Your task to perform on an android device: Find coffee shops on Maps Image 0: 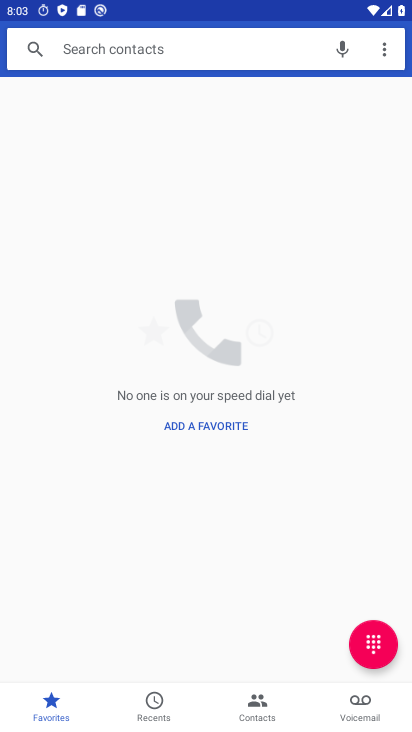
Step 0: press home button
Your task to perform on an android device: Find coffee shops on Maps Image 1: 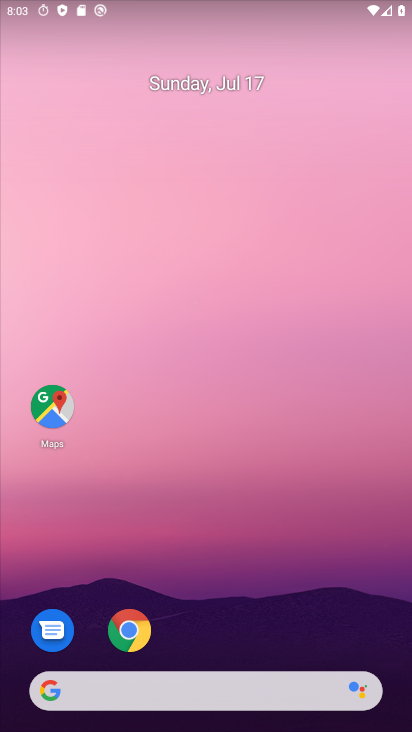
Step 1: click (41, 427)
Your task to perform on an android device: Find coffee shops on Maps Image 2: 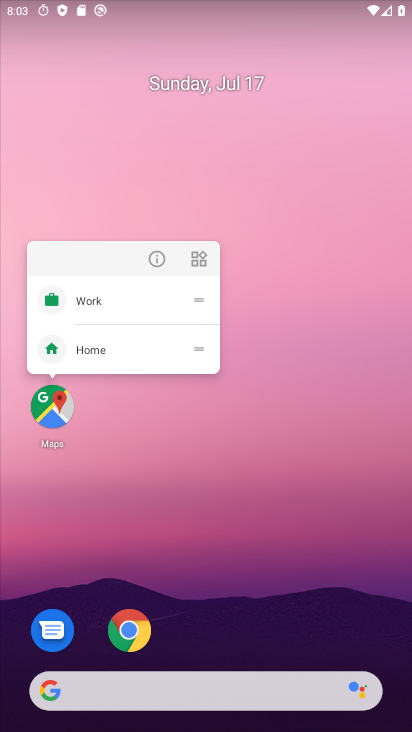
Step 2: click (42, 381)
Your task to perform on an android device: Find coffee shops on Maps Image 3: 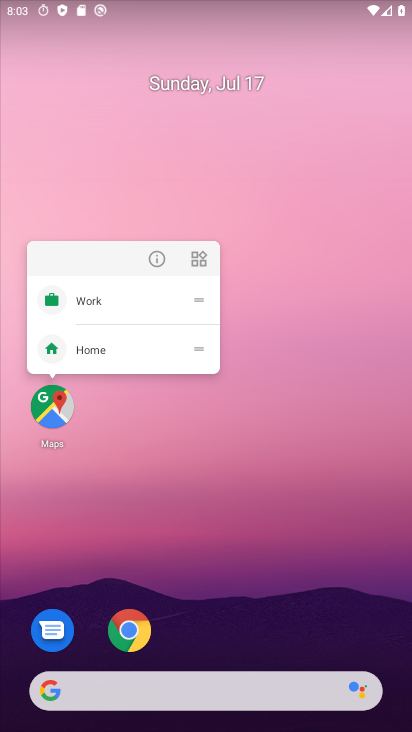
Step 3: click (44, 419)
Your task to perform on an android device: Find coffee shops on Maps Image 4: 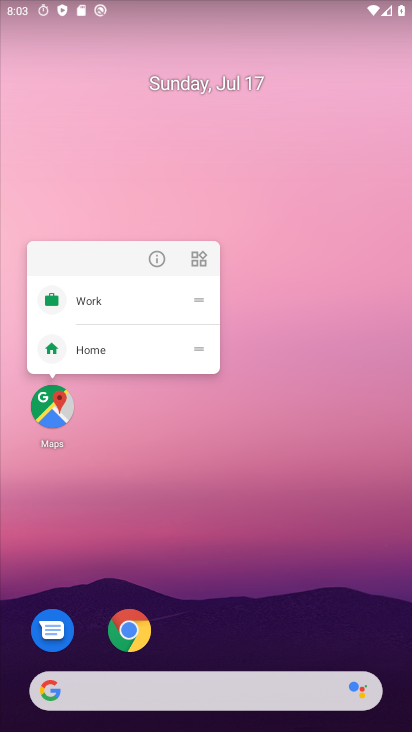
Step 4: click (56, 409)
Your task to perform on an android device: Find coffee shops on Maps Image 5: 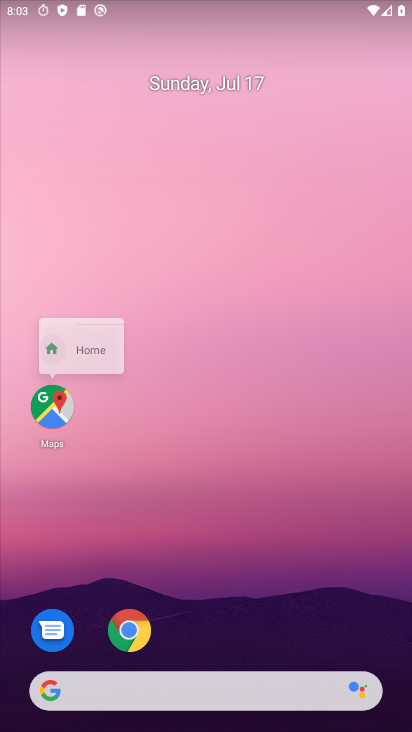
Step 5: click (61, 403)
Your task to perform on an android device: Find coffee shops on Maps Image 6: 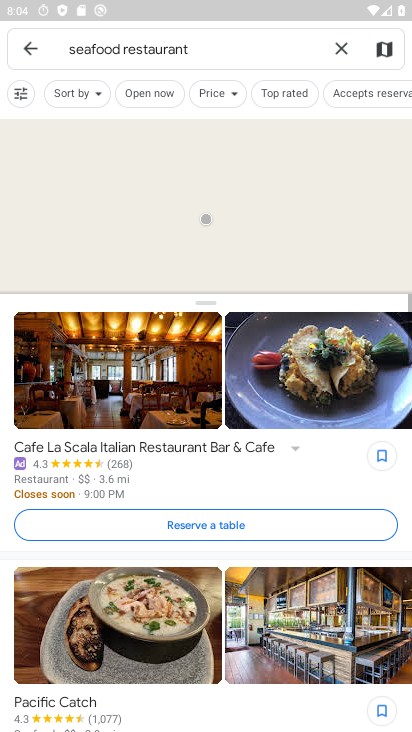
Step 6: click (335, 49)
Your task to perform on an android device: Find coffee shops on Maps Image 7: 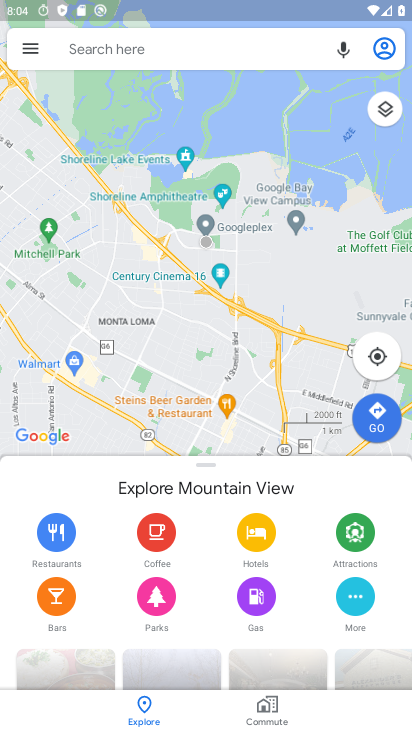
Step 7: click (64, 41)
Your task to perform on an android device: Find coffee shops on Maps Image 8: 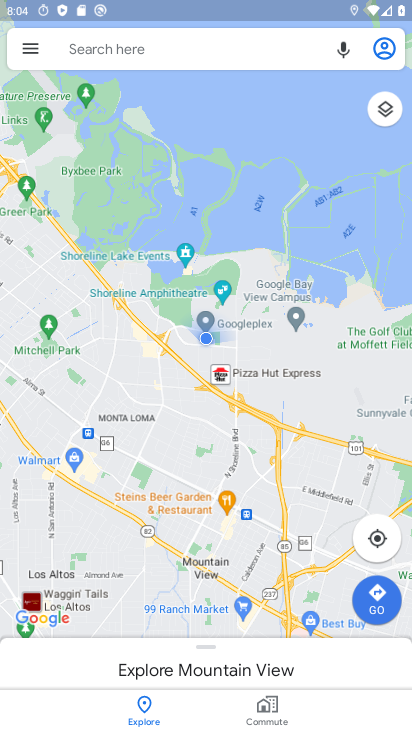
Step 8: click (81, 44)
Your task to perform on an android device: Find coffee shops on Maps Image 9: 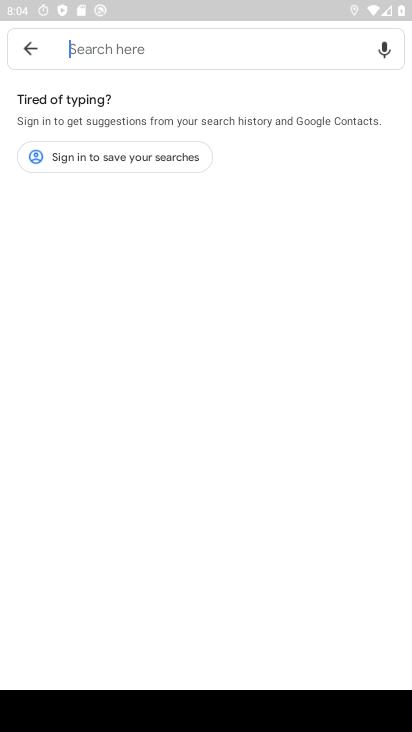
Step 9: type "coffee shops"
Your task to perform on an android device: Find coffee shops on Maps Image 10: 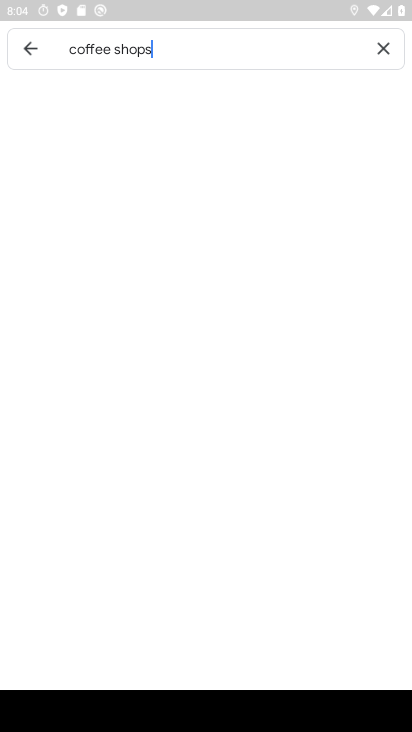
Step 10: type ""
Your task to perform on an android device: Find coffee shops on Maps Image 11: 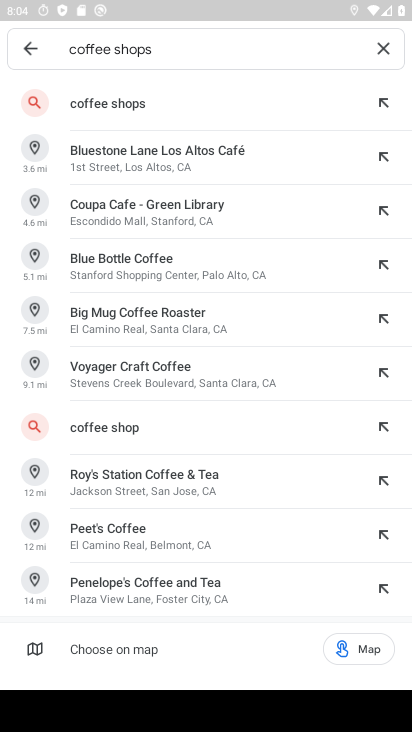
Step 11: click (112, 102)
Your task to perform on an android device: Find coffee shops on Maps Image 12: 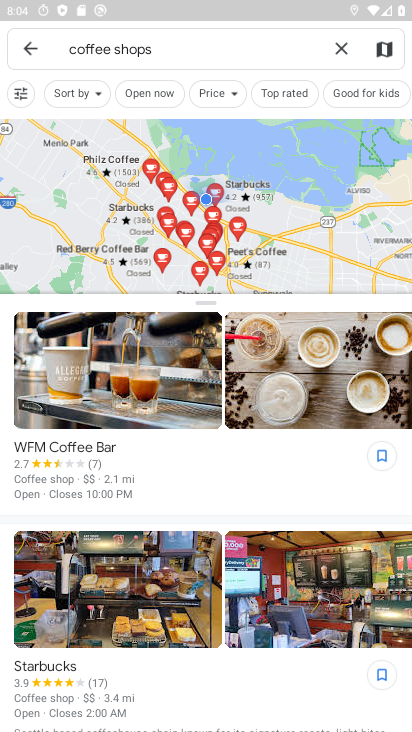
Step 12: task complete